Your task to perform on an android device: Go to accessibility settings Image 0: 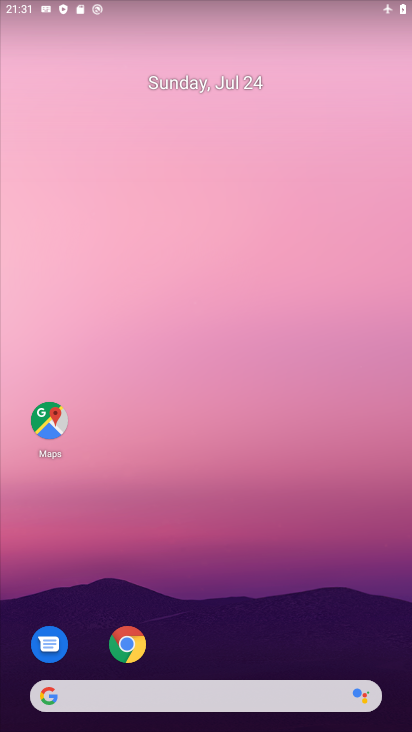
Step 0: click (330, 122)
Your task to perform on an android device: Go to accessibility settings Image 1: 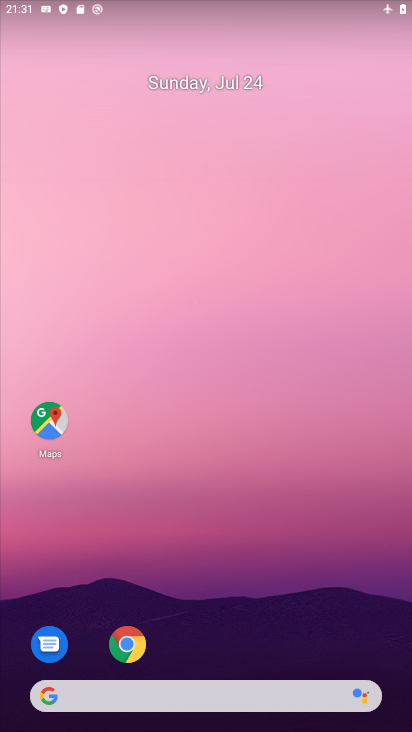
Step 1: drag from (370, 656) to (325, 18)
Your task to perform on an android device: Go to accessibility settings Image 2: 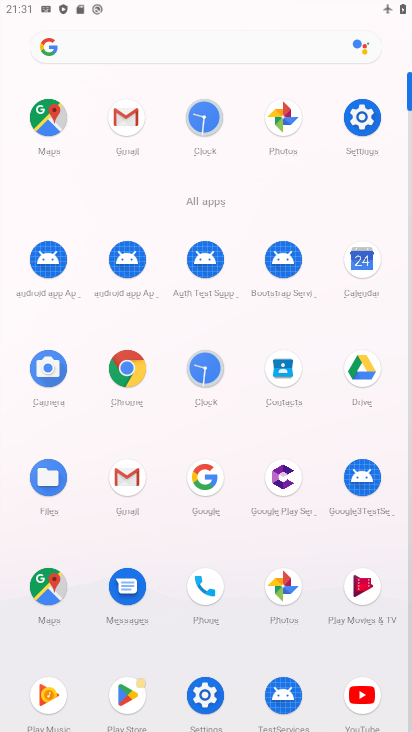
Step 2: click (204, 695)
Your task to perform on an android device: Go to accessibility settings Image 3: 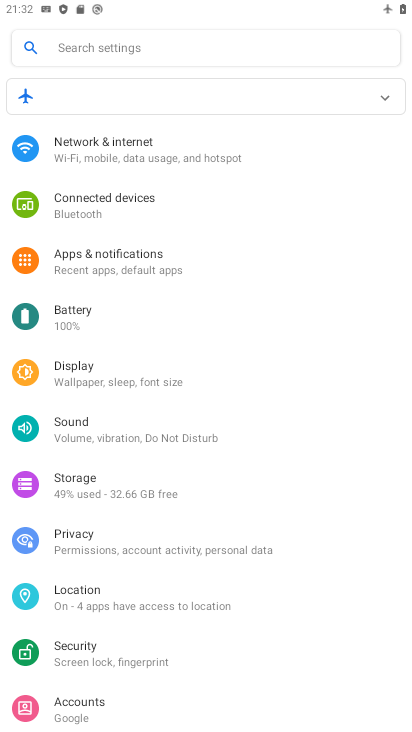
Step 3: drag from (326, 641) to (304, 218)
Your task to perform on an android device: Go to accessibility settings Image 4: 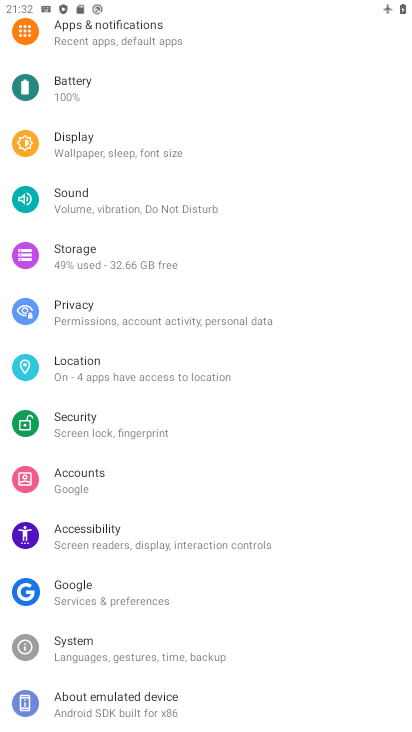
Step 4: click (66, 531)
Your task to perform on an android device: Go to accessibility settings Image 5: 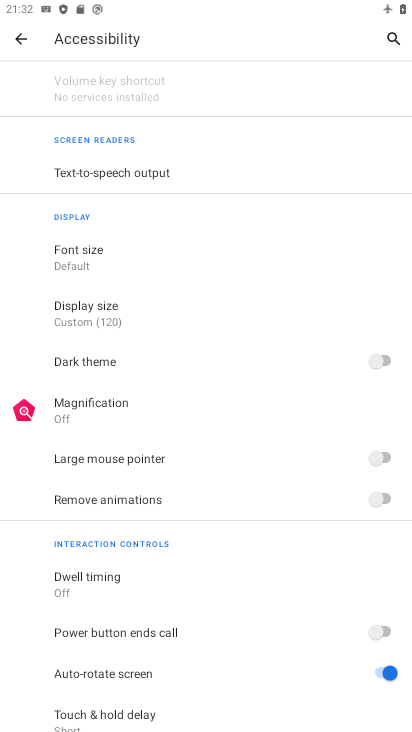
Step 5: task complete